Your task to perform on an android device: delete a single message in the gmail app Image 0: 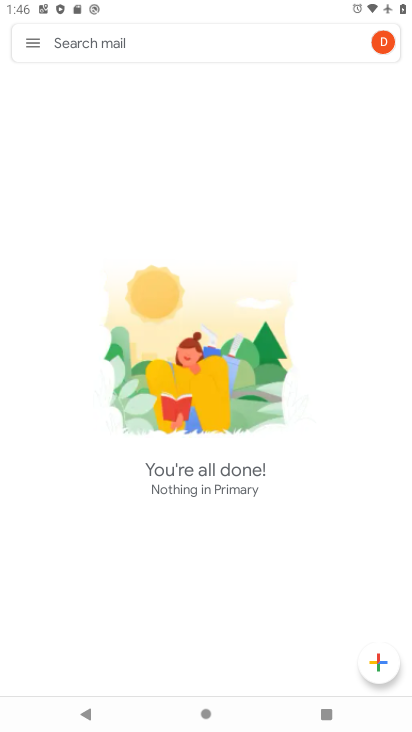
Step 0: press home button
Your task to perform on an android device: delete a single message in the gmail app Image 1: 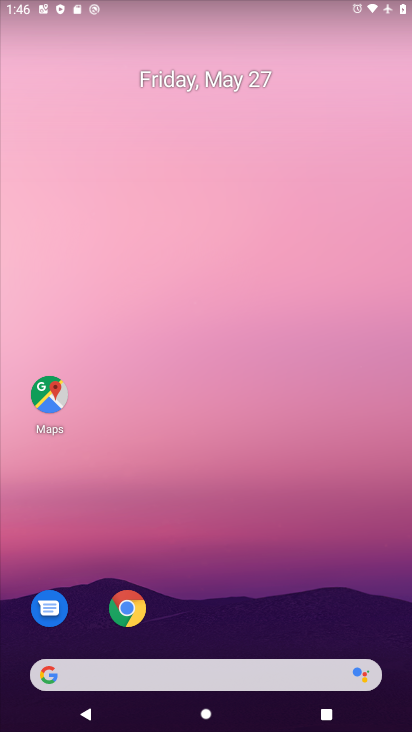
Step 1: drag from (160, 664) to (309, 164)
Your task to perform on an android device: delete a single message in the gmail app Image 2: 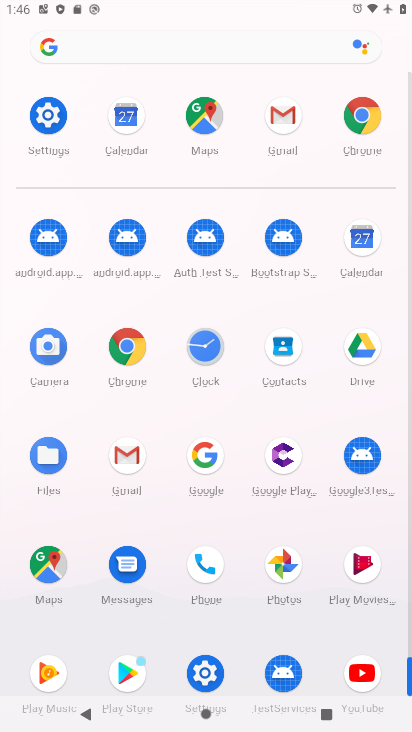
Step 2: click (287, 119)
Your task to perform on an android device: delete a single message in the gmail app Image 3: 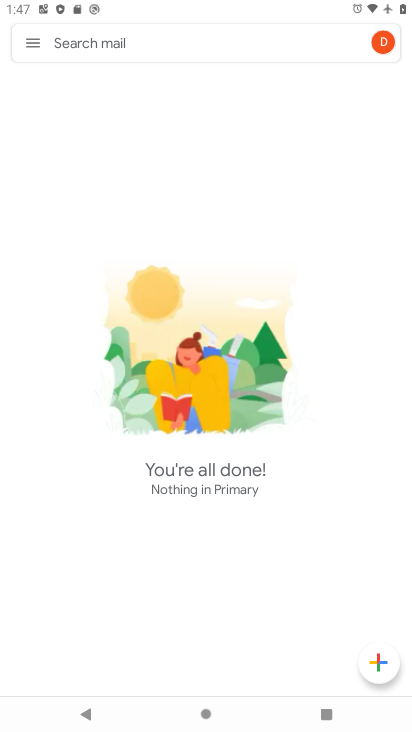
Step 3: task complete